Your task to perform on an android device: Open Youtube and go to the subscriptions tab Image 0: 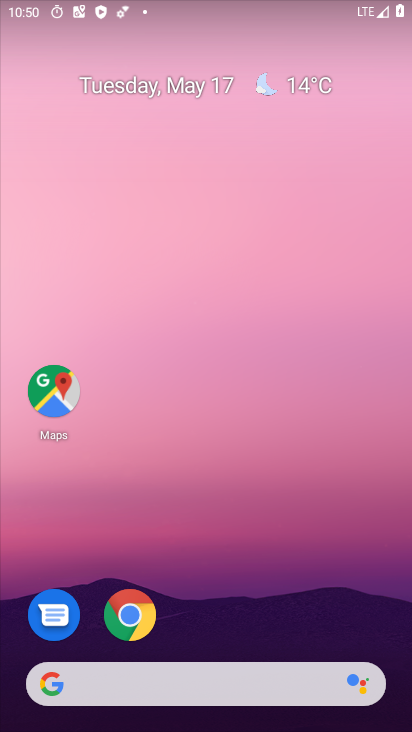
Step 0: drag from (163, 676) to (282, 247)
Your task to perform on an android device: Open Youtube and go to the subscriptions tab Image 1: 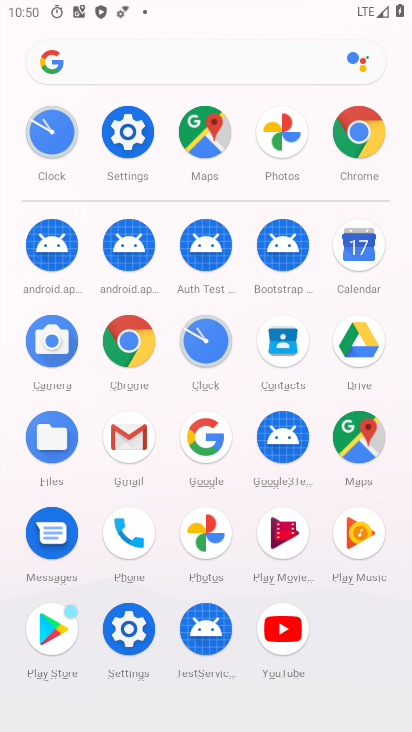
Step 1: click (276, 629)
Your task to perform on an android device: Open Youtube and go to the subscriptions tab Image 2: 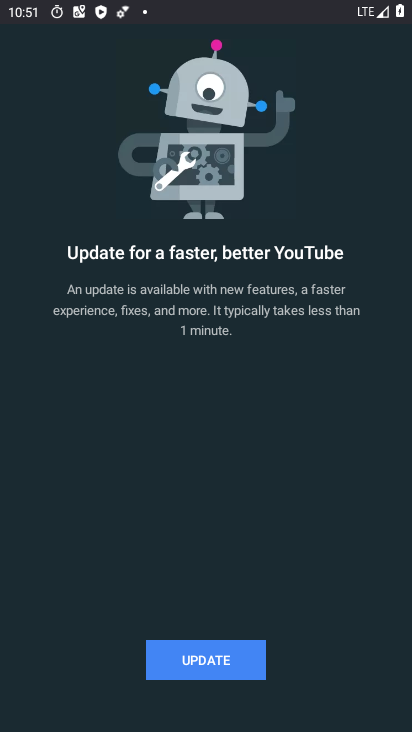
Step 2: click (220, 664)
Your task to perform on an android device: Open Youtube and go to the subscriptions tab Image 3: 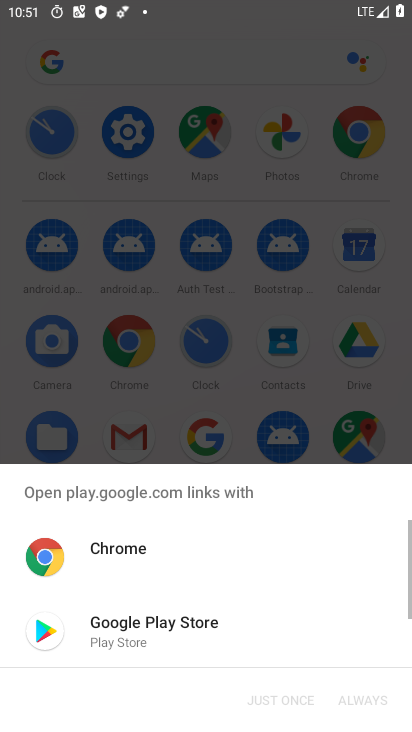
Step 3: click (169, 635)
Your task to perform on an android device: Open Youtube and go to the subscriptions tab Image 4: 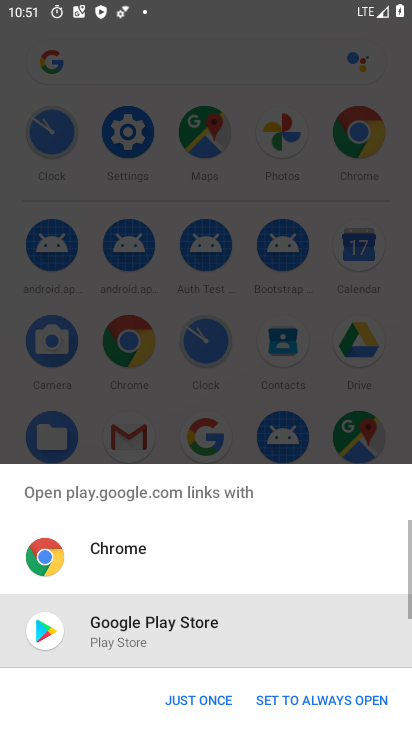
Step 4: click (181, 705)
Your task to perform on an android device: Open Youtube and go to the subscriptions tab Image 5: 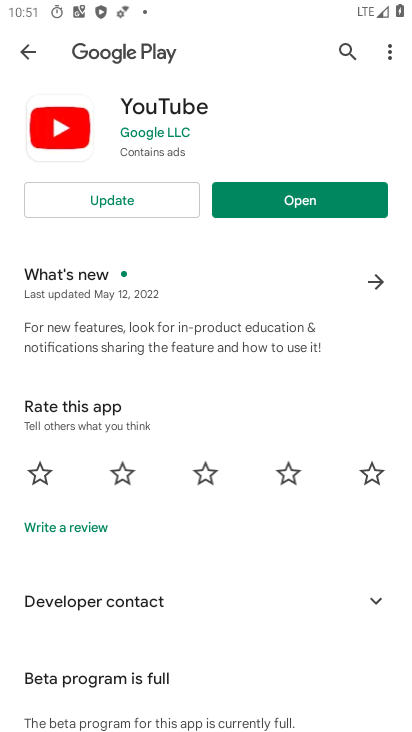
Step 5: click (162, 193)
Your task to perform on an android device: Open Youtube and go to the subscriptions tab Image 6: 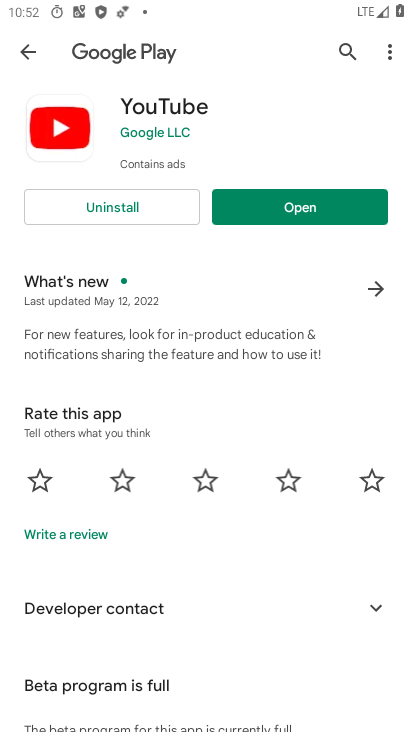
Step 6: click (272, 209)
Your task to perform on an android device: Open Youtube and go to the subscriptions tab Image 7: 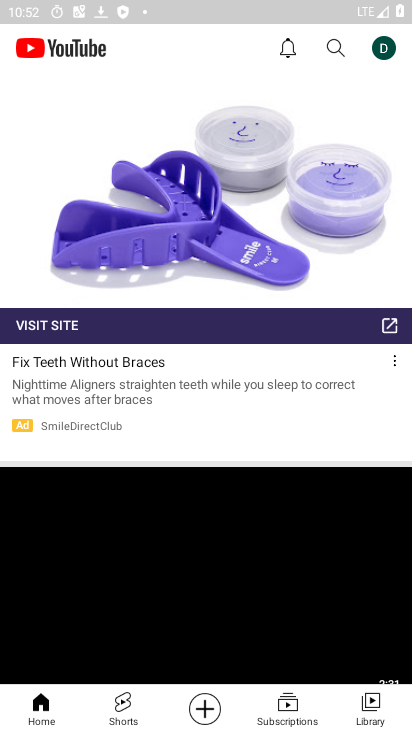
Step 7: click (290, 704)
Your task to perform on an android device: Open Youtube and go to the subscriptions tab Image 8: 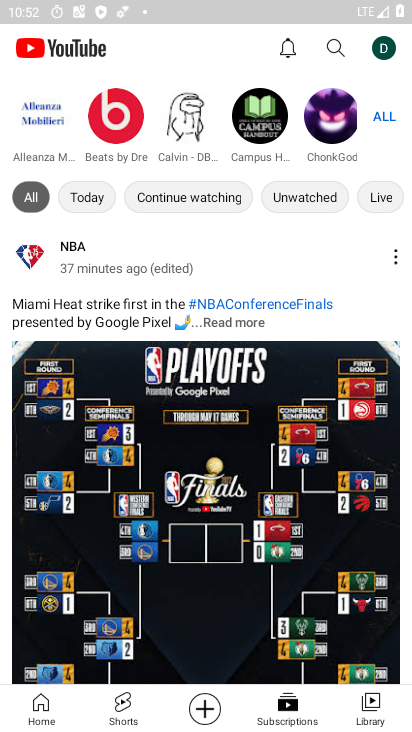
Step 8: task complete